Your task to perform on an android device: toggle translation in the chrome app Image 0: 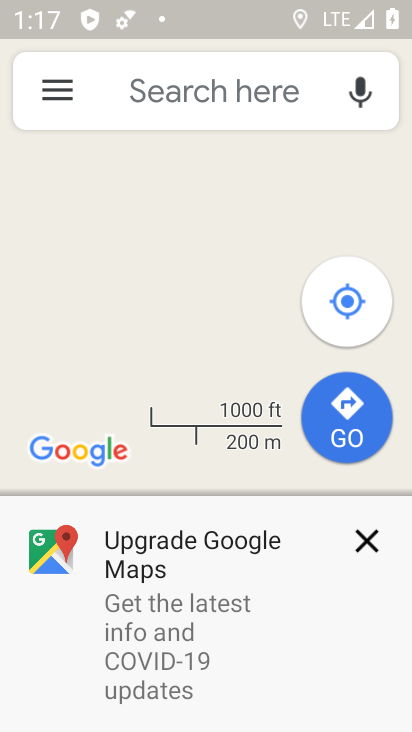
Step 0: press home button
Your task to perform on an android device: toggle translation in the chrome app Image 1: 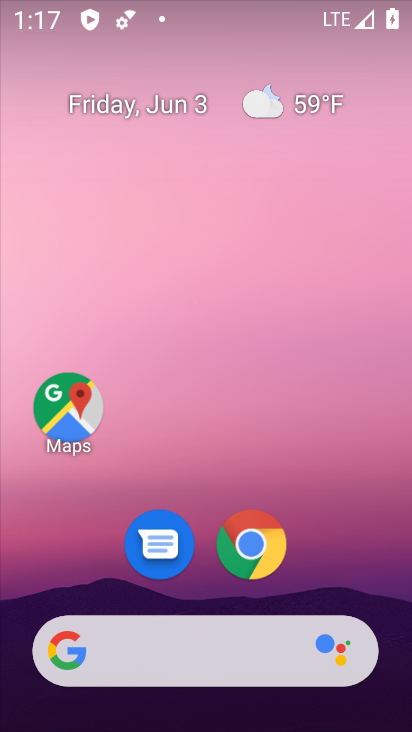
Step 1: drag from (186, 593) to (114, 44)
Your task to perform on an android device: toggle translation in the chrome app Image 2: 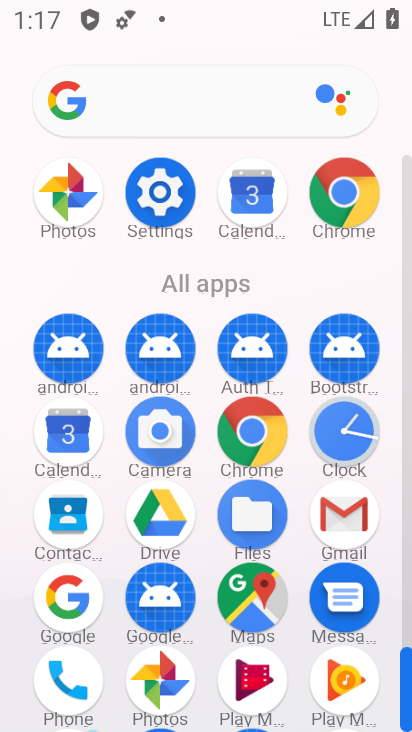
Step 2: click (262, 435)
Your task to perform on an android device: toggle translation in the chrome app Image 3: 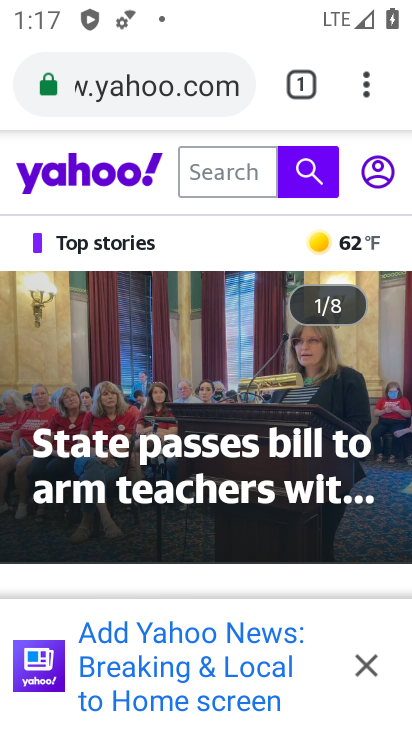
Step 3: drag from (363, 84) to (100, 597)
Your task to perform on an android device: toggle translation in the chrome app Image 4: 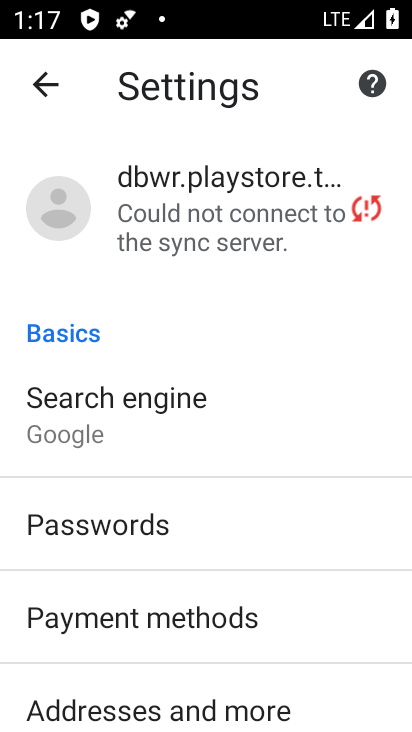
Step 4: drag from (120, 579) to (90, 381)
Your task to perform on an android device: toggle translation in the chrome app Image 5: 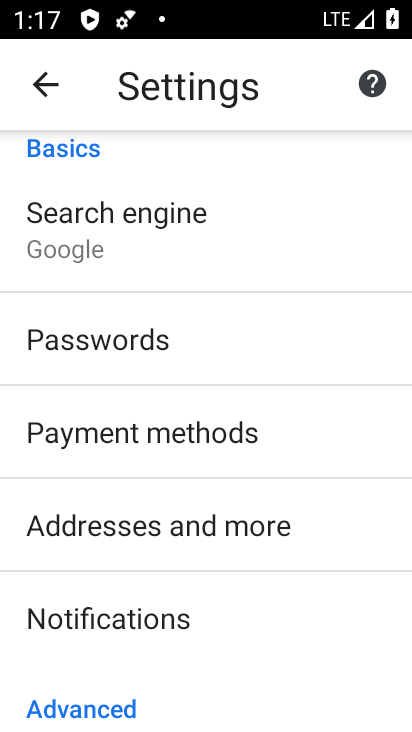
Step 5: drag from (101, 597) to (83, 248)
Your task to perform on an android device: toggle translation in the chrome app Image 6: 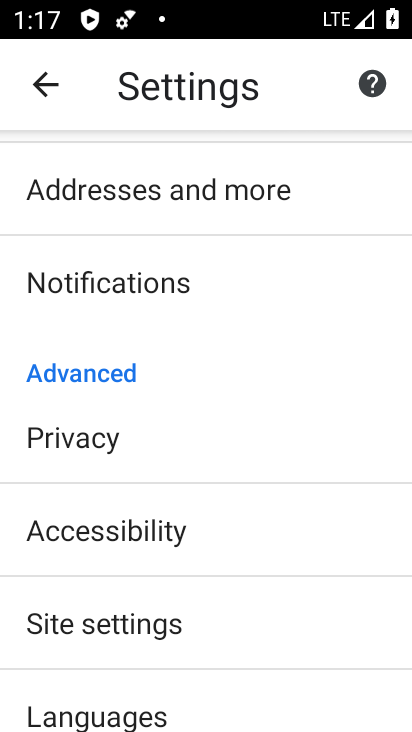
Step 6: click (109, 690)
Your task to perform on an android device: toggle translation in the chrome app Image 7: 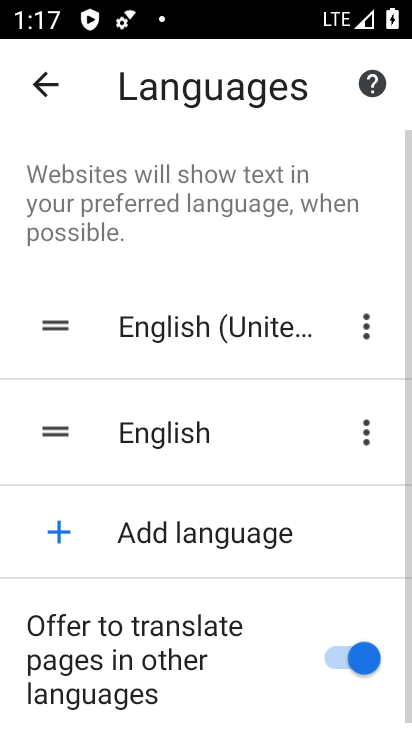
Step 7: click (109, 607)
Your task to perform on an android device: toggle translation in the chrome app Image 8: 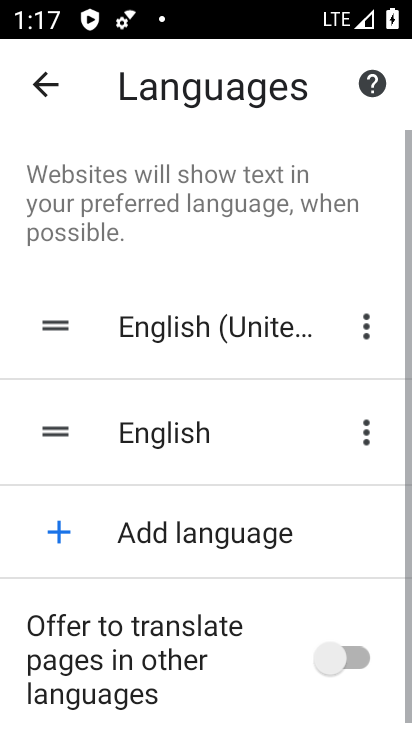
Step 8: task complete